Your task to perform on an android device: change timer sound Image 0: 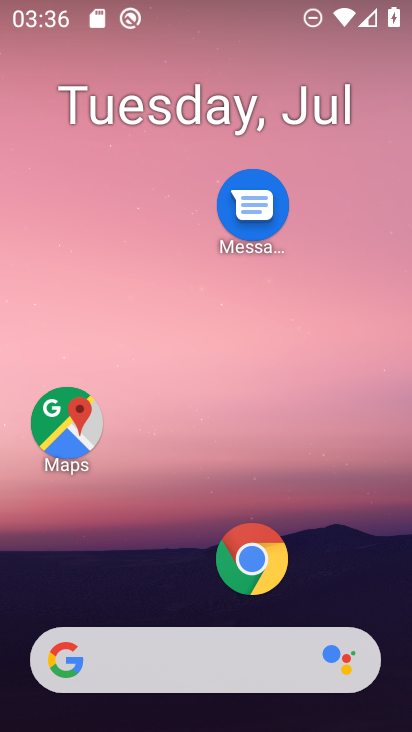
Step 0: drag from (162, 589) to (286, 50)
Your task to perform on an android device: change timer sound Image 1: 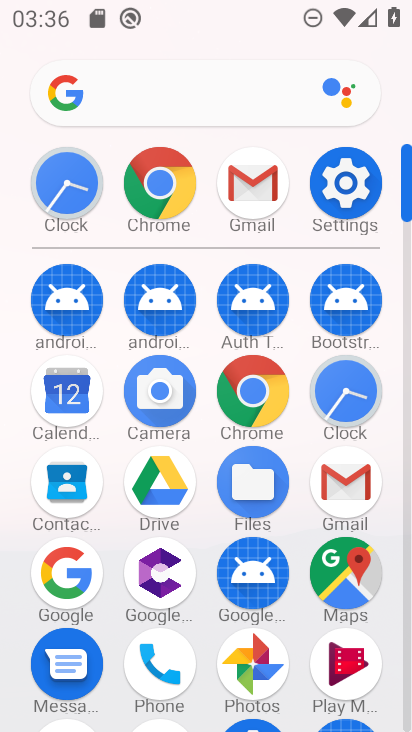
Step 1: click (366, 399)
Your task to perform on an android device: change timer sound Image 2: 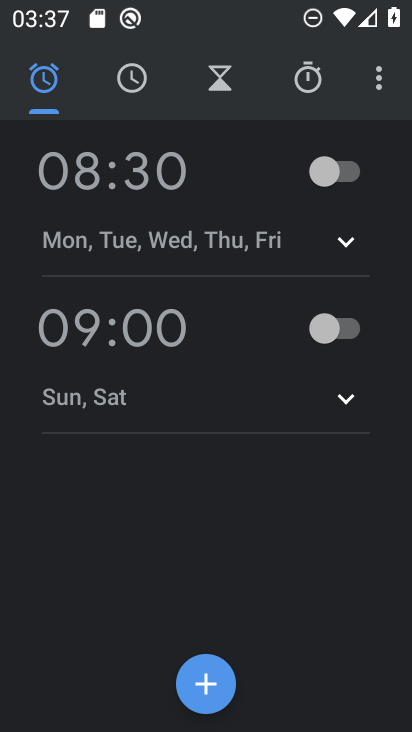
Step 2: click (373, 75)
Your task to perform on an android device: change timer sound Image 3: 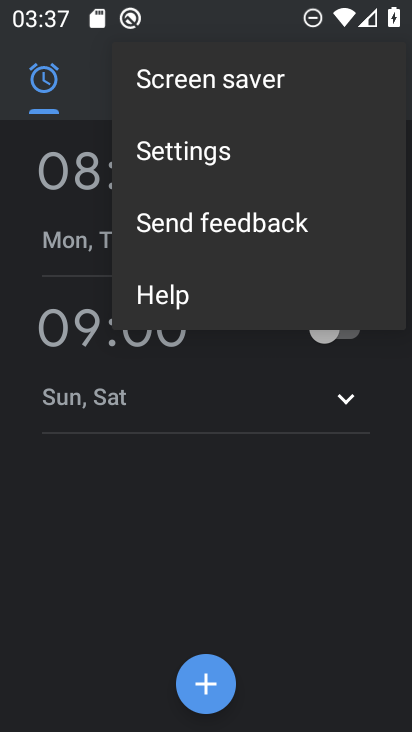
Step 3: click (206, 163)
Your task to perform on an android device: change timer sound Image 4: 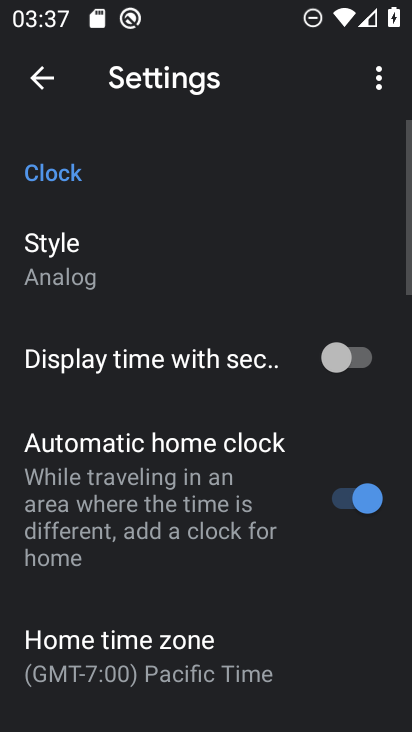
Step 4: drag from (138, 643) to (323, 98)
Your task to perform on an android device: change timer sound Image 5: 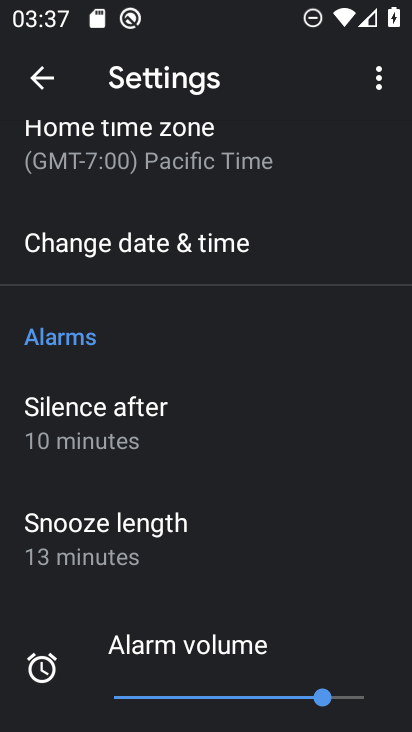
Step 5: drag from (111, 535) to (277, 88)
Your task to perform on an android device: change timer sound Image 6: 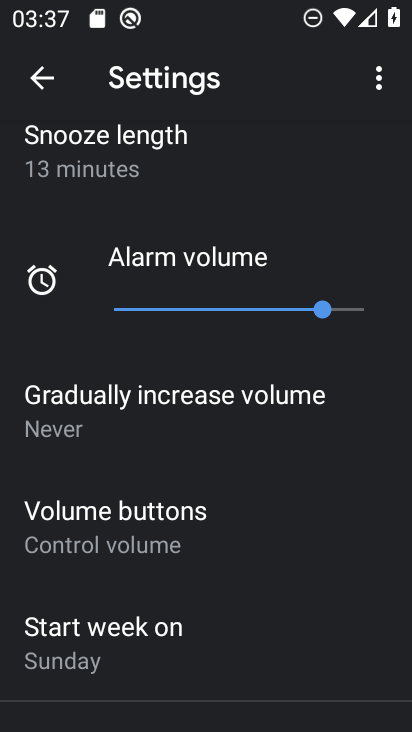
Step 6: drag from (186, 661) to (333, 166)
Your task to perform on an android device: change timer sound Image 7: 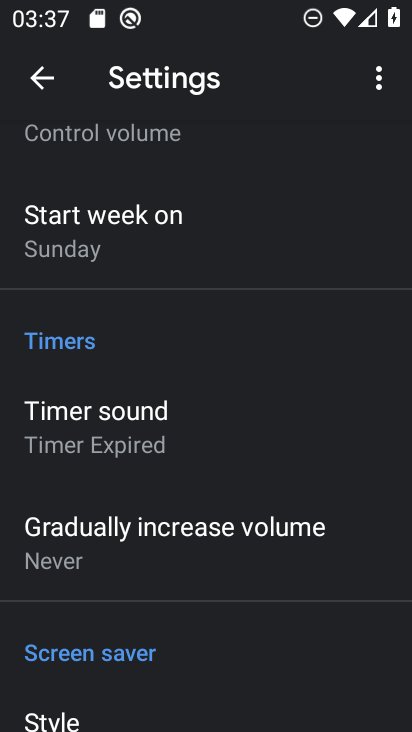
Step 7: click (151, 431)
Your task to perform on an android device: change timer sound Image 8: 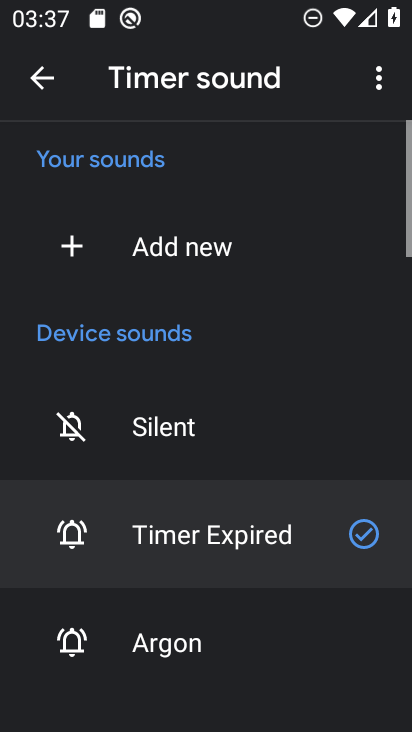
Step 8: click (167, 679)
Your task to perform on an android device: change timer sound Image 9: 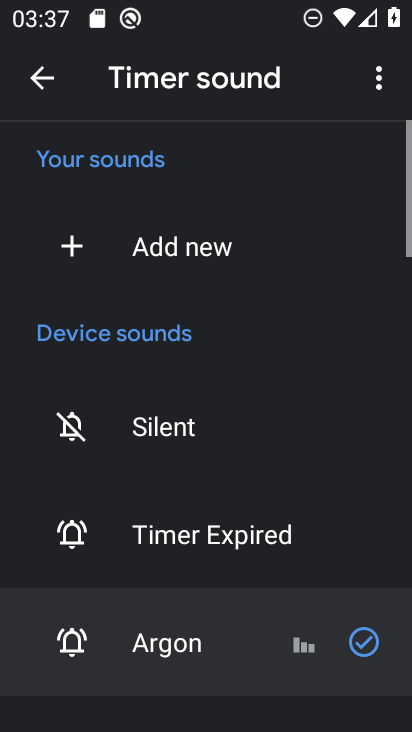
Step 9: task complete